Your task to perform on an android device: allow cookies in the chrome app Image 0: 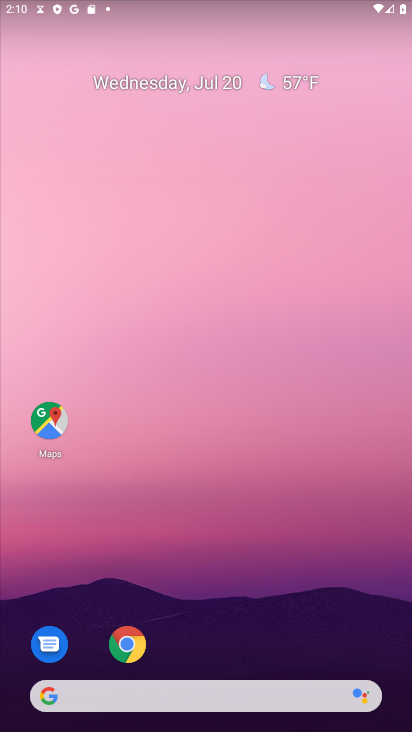
Step 0: press home button
Your task to perform on an android device: allow cookies in the chrome app Image 1: 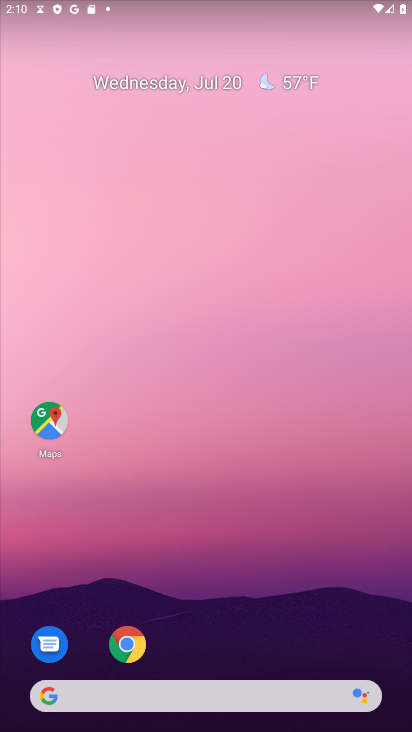
Step 1: drag from (293, 619) to (353, 34)
Your task to perform on an android device: allow cookies in the chrome app Image 2: 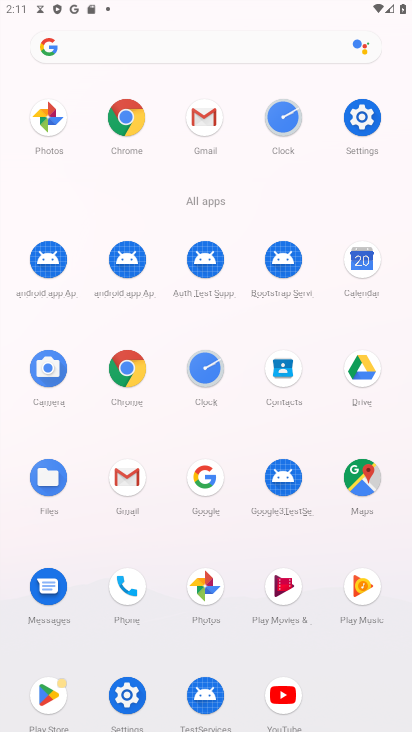
Step 2: click (120, 117)
Your task to perform on an android device: allow cookies in the chrome app Image 3: 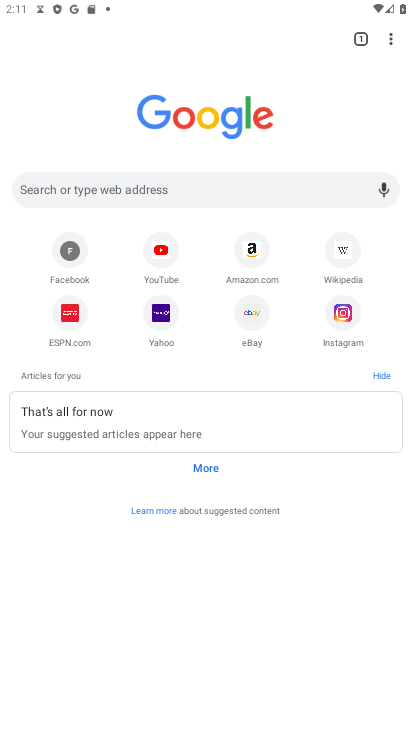
Step 3: drag from (389, 47) to (248, 327)
Your task to perform on an android device: allow cookies in the chrome app Image 4: 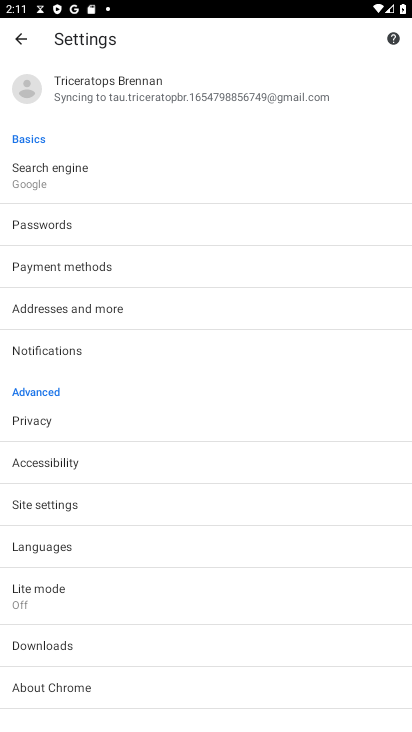
Step 4: click (45, 506)
Your task to perform on an android device: allow cookies in the chrome app Image 5: 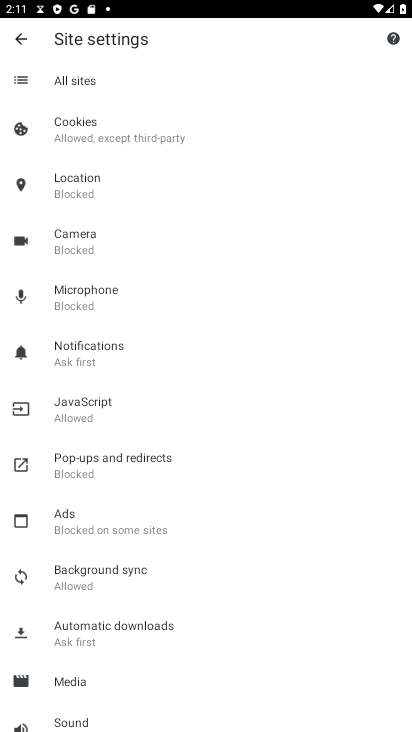
Step 5: click (72, 132)
Your task to perform on an android device: allow cookies in the chrome app Image 6: 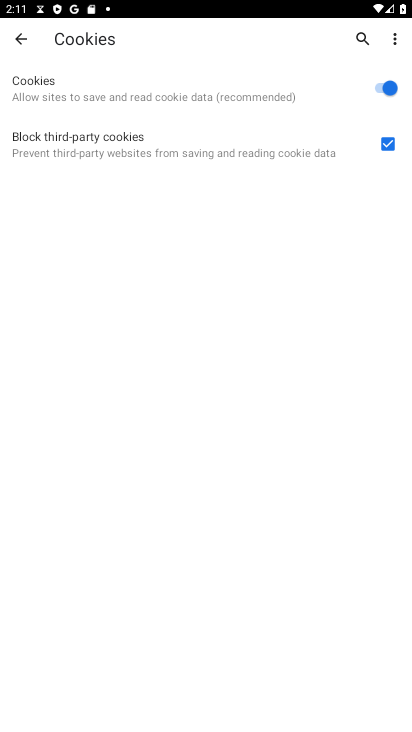
Step 6: task complete